Your task to perform on an android device: Open Google Maps Image 0: 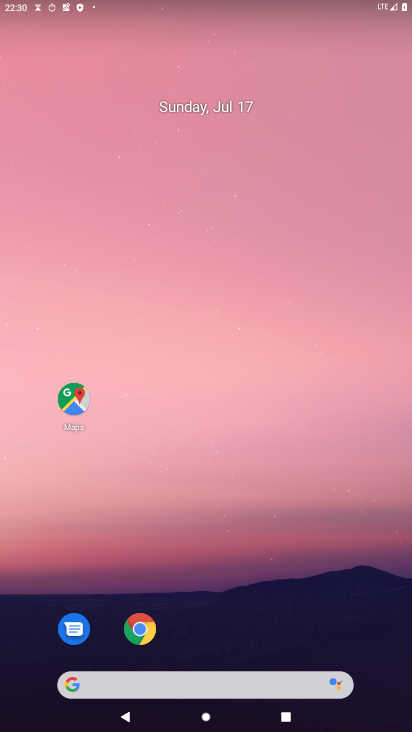
Step 0: drag from (239, 724) to (233, 121)
Your task to perform on an android device: Open Google Maps Image 1: 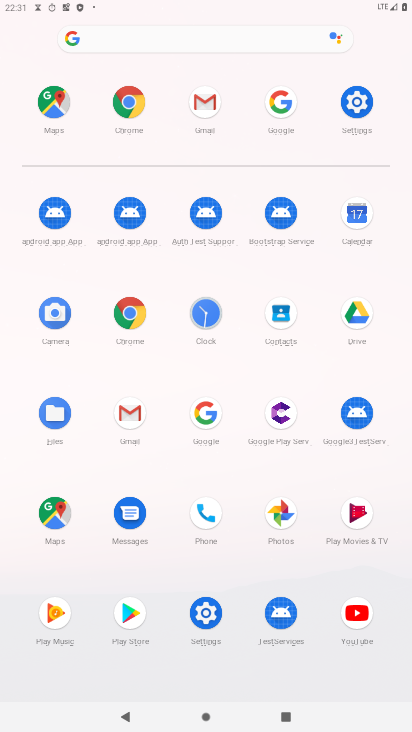
Step 1: click (57, 516)
Your task to perform on an android device: Open Google Maps Image 2: 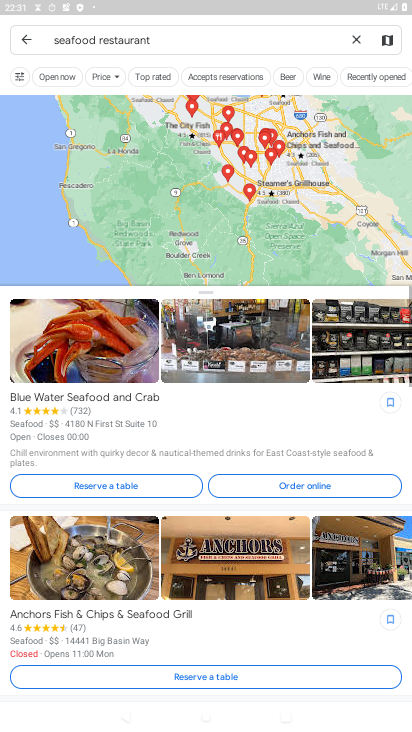
Step 2: task complete